Your task to perform on an android device: What's on my calendar today? Image 0: 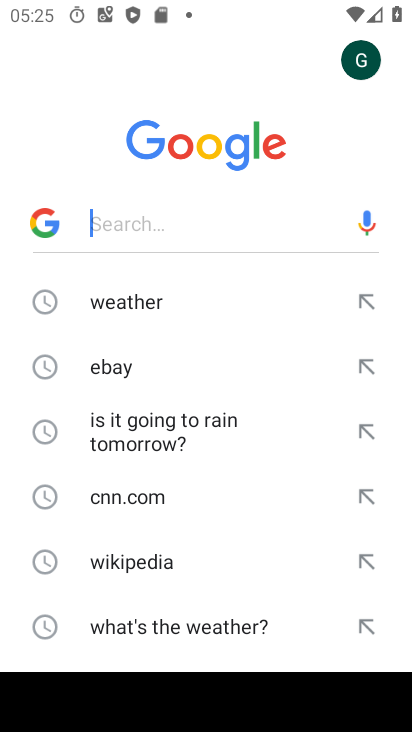
Step 0: press back button
Your task to perform on an android device: What's on my calendar today? Image 1: 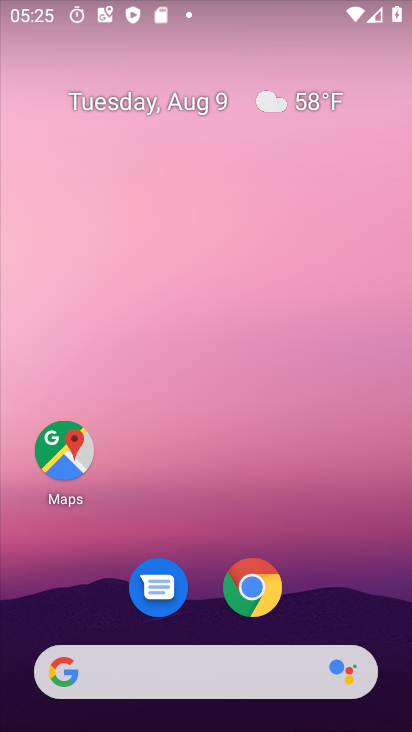
Step 1: drag from (218, 673) to (266, 108)
Your task to perform on an android device: What's on my calendar today? Image 2: 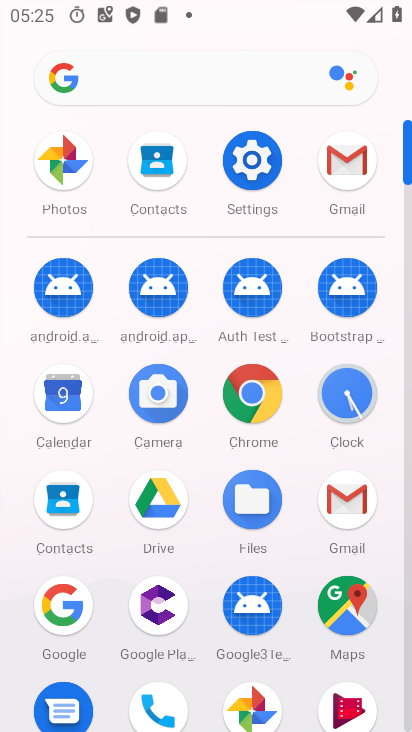
Step 2: click (65, 386)
Your task to perform on an android device: What's on my calendar today? Image 3: 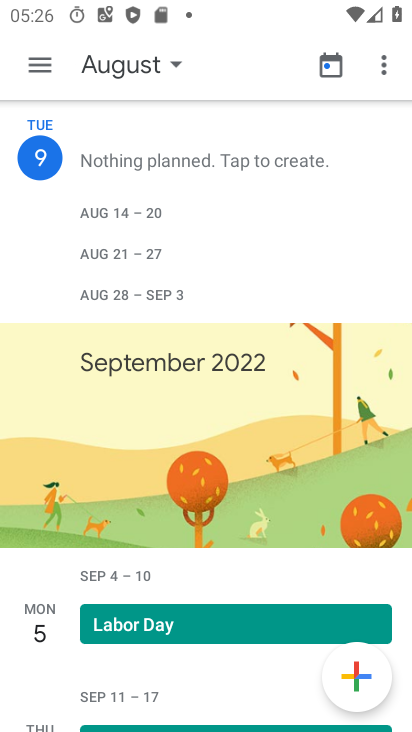
Step 3: task complete